Your task to perform on an android device: check google app version Image 0: 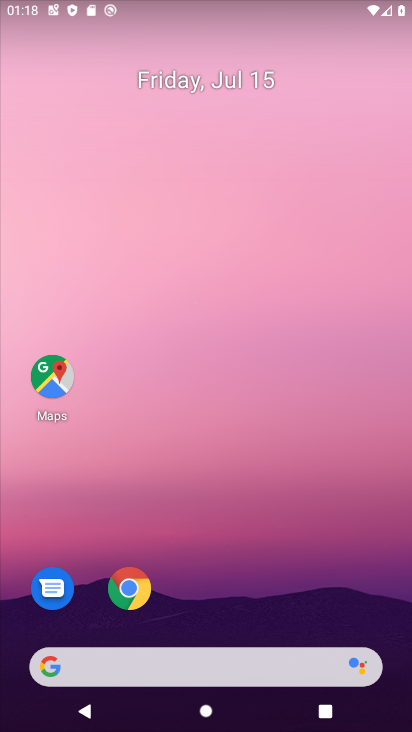
Step 0: click (133, 590)
Your task to perform on an android device: check google app version Image 1: 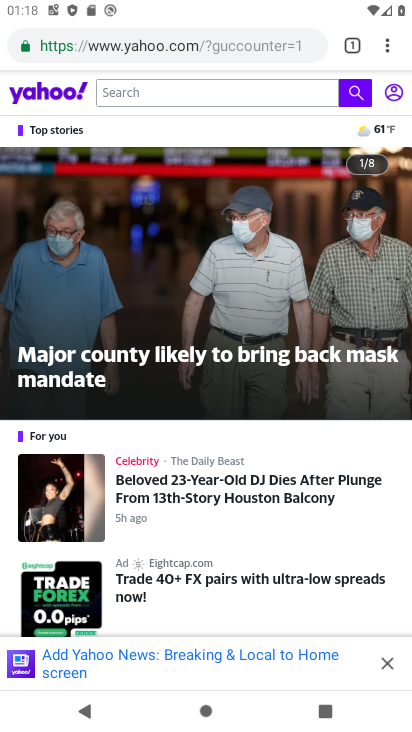
Step 1: click (383, 43)
Your task to perform on an android device: check google app version Image 2: 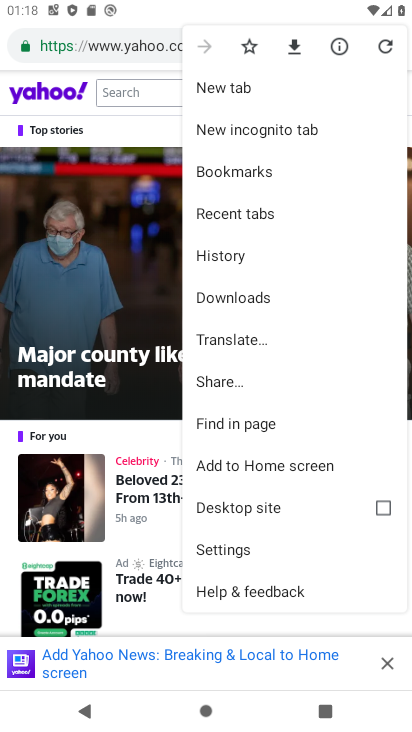
Step 2: click (239, 547)
Your task to perform on an android device: check google app version Image 3: 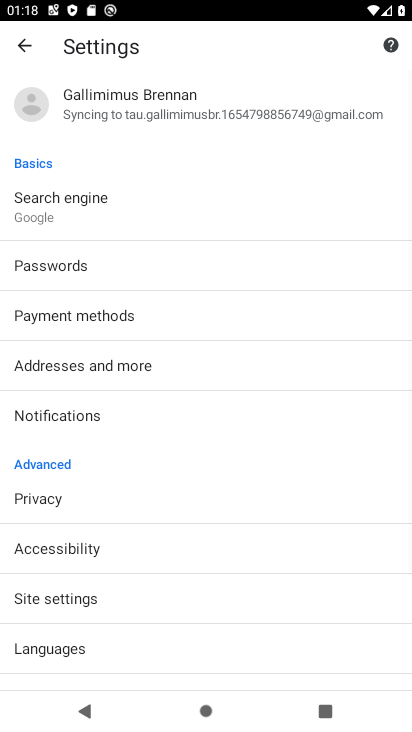
Step 3: drag from (206, 654) to (213, 212)
Your task to perform on an android device: check google app version Image 4: 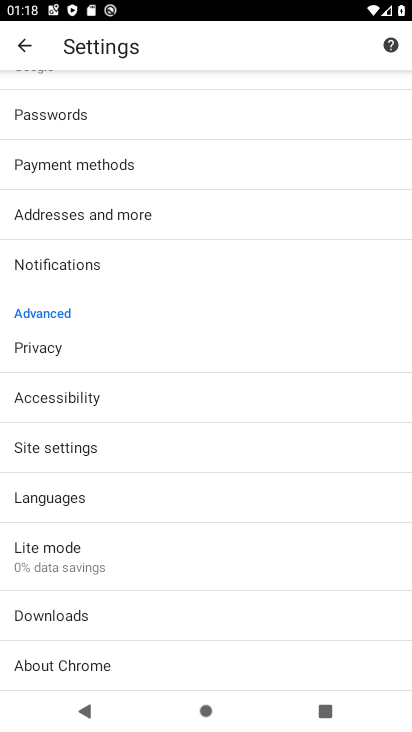
Step 4: click (49, 660)
Your task to perform on an android device: check google app version Image 5: 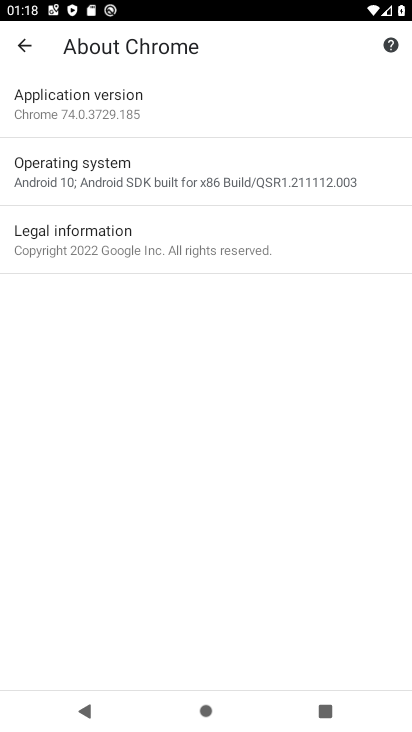
Step 5: click (87, 106)
Your task to perform on an android device: check google app version Image 6: 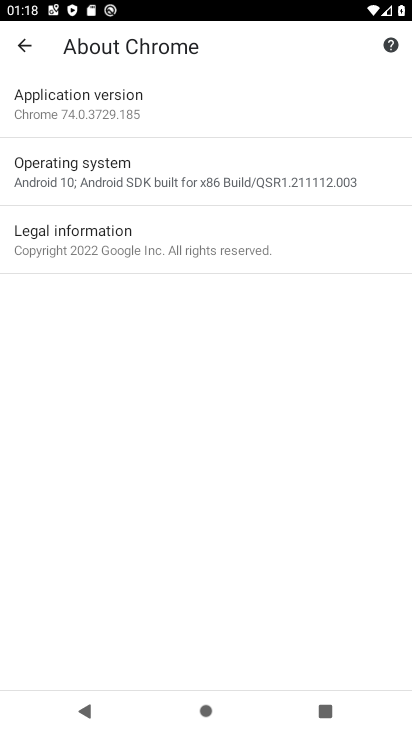
Step 6: task complete